Your task to perform on an android device: change the upload size in google photos Image 0: 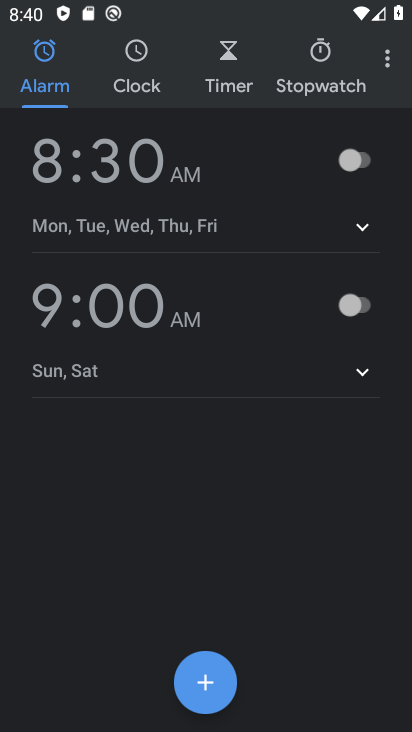
Step 0: press home button
Your task to perform on an android device: change the upload size in google photos Image 1: 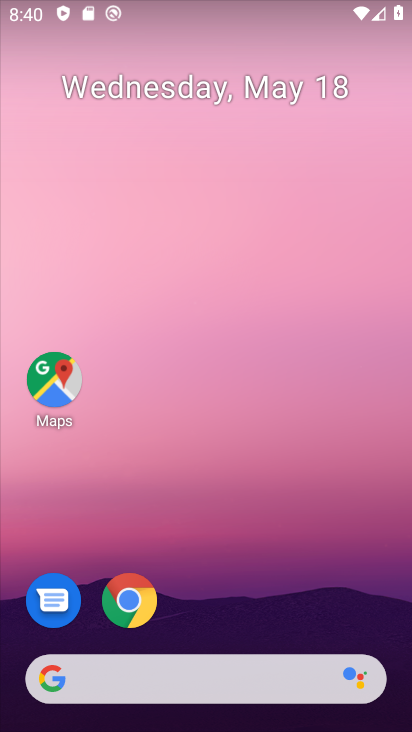
Step 1: drag from (17, 516) to (207, 146)
Your task to perform on an android device: change the upload size in google photos Image 2: 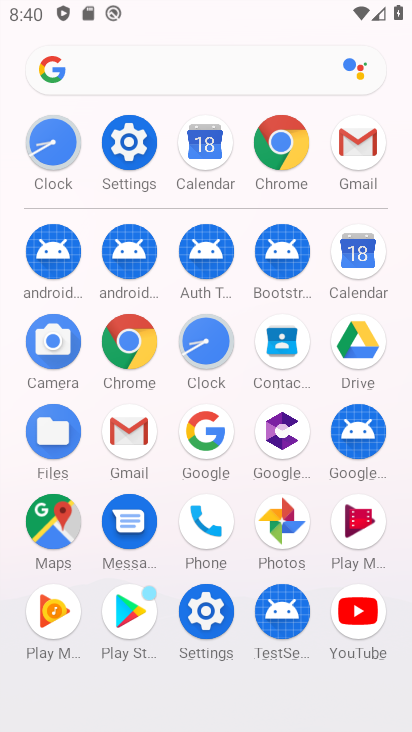
Step 2: click (277, 516)
Your task to perform on an android device: change the upload size in google photos Image 3: 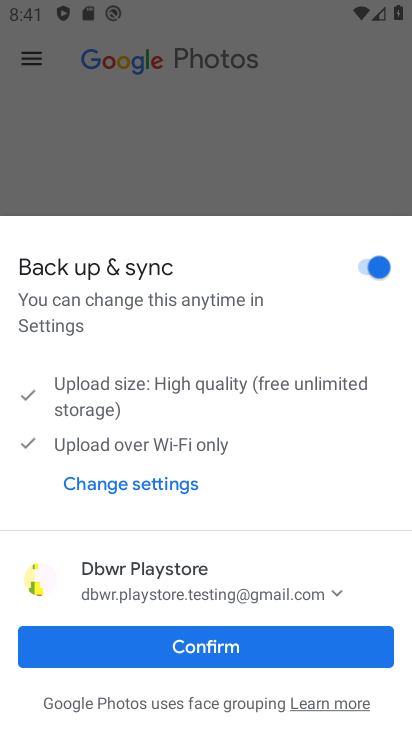
Step 3: click (212, 638)
Your task to perform on an android device: change the upload size in google photos Image 4: 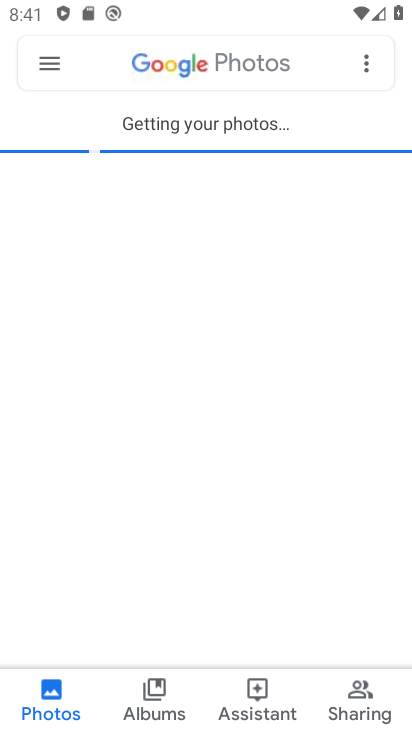
Step 4: click (39, 72)
Your task to perform on an android device: change the upload size in google photos Image 5: 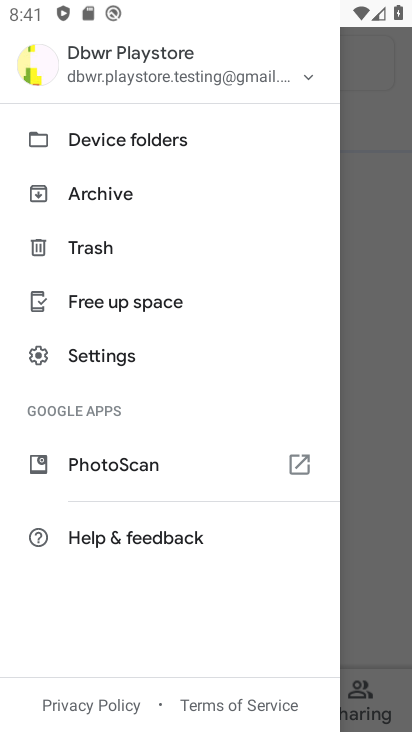
Step 5: click (95, 348)
Your task to perform on an android device: change the upload size in google photos Image 6: 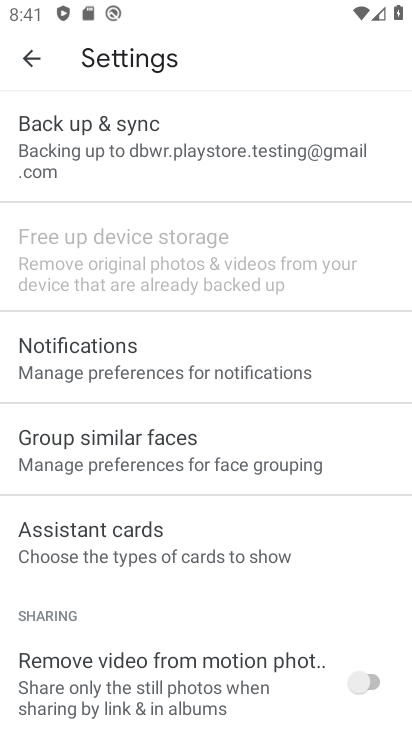
Step 6: click (120, 145)
Your task to perform on an android device: change the upload size in google photos Image 7: 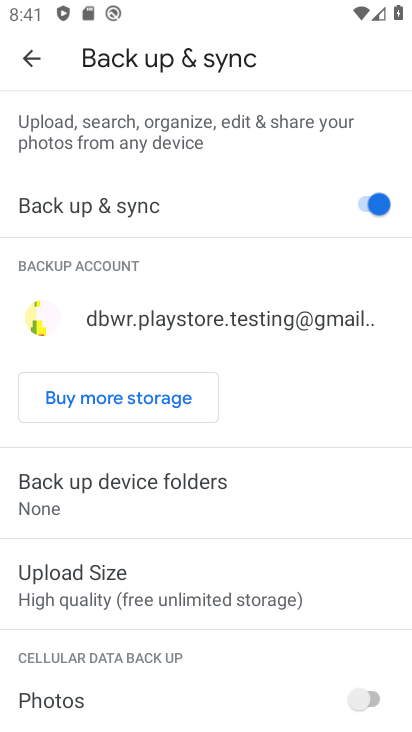
Step 7: click (118, 608)
Your task to perform on an android device: change the upload size in google photos Image 8: 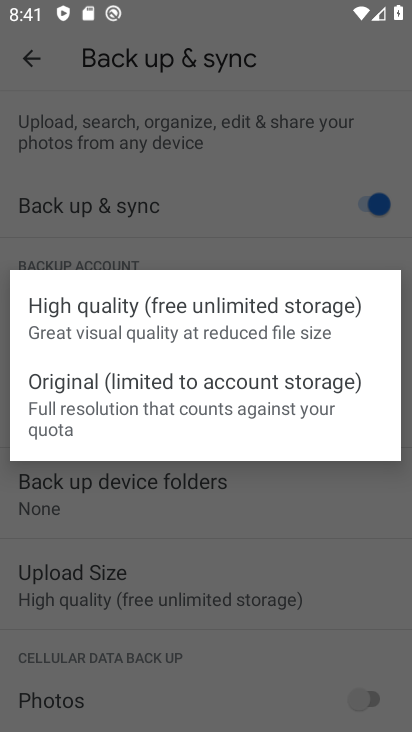
Step 8: click (159, 412)
Your task to perform on an android device: change the upload size in google photos Image 9: 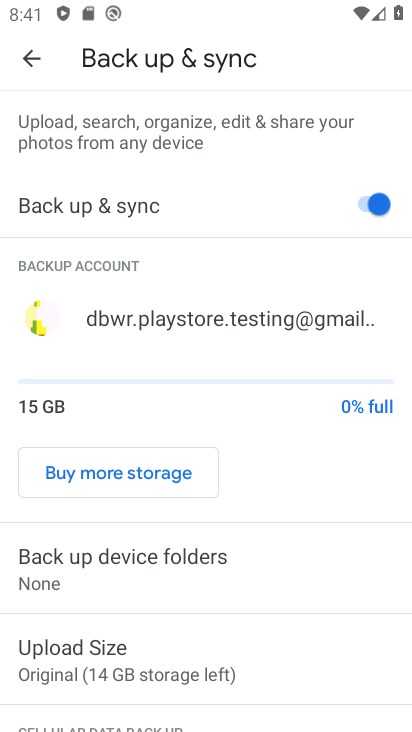
Step 9: task complete